Your task to perform on an android device: Set the phone to "Do not disturb". Image 0: 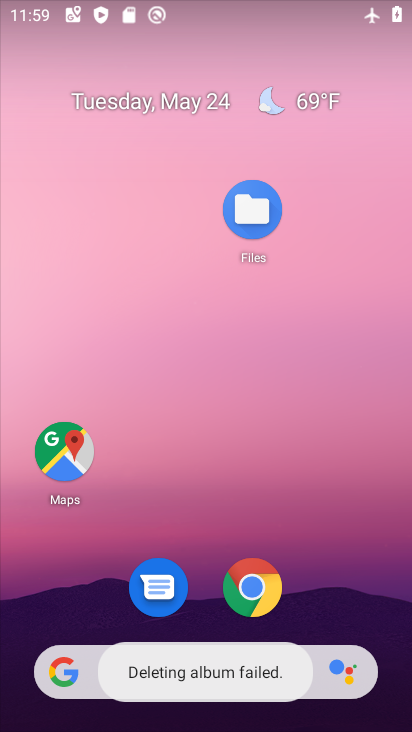
Step 0: drag from (329, 571) to (128, 215)
Your task to perform on an android device: Set the phone to "Do not disturb". Image 1: 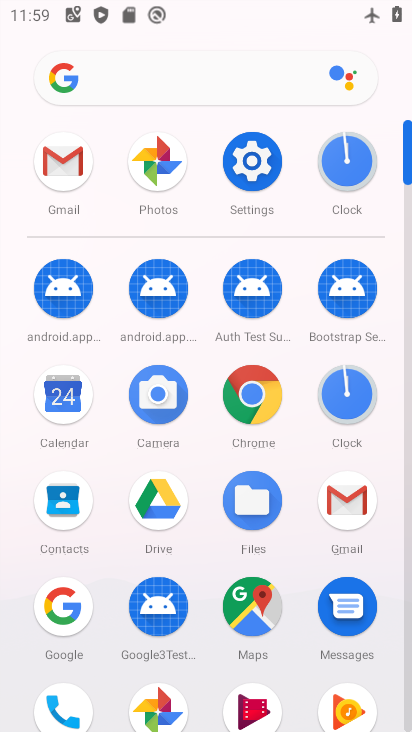
Step 1: click (255, 169)
Your task to perform on an android device: Set the phone to "Do not disturb". Image 2: 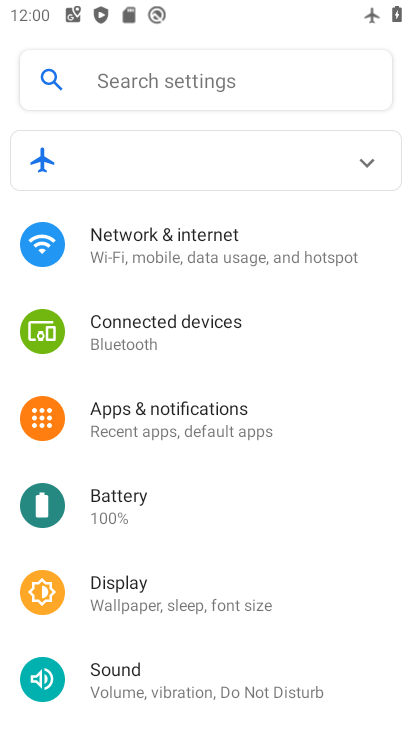
Step 2: click (169, 696)
Your task to perform on an android device: Set the phone to "Do not disturb". Image 3: 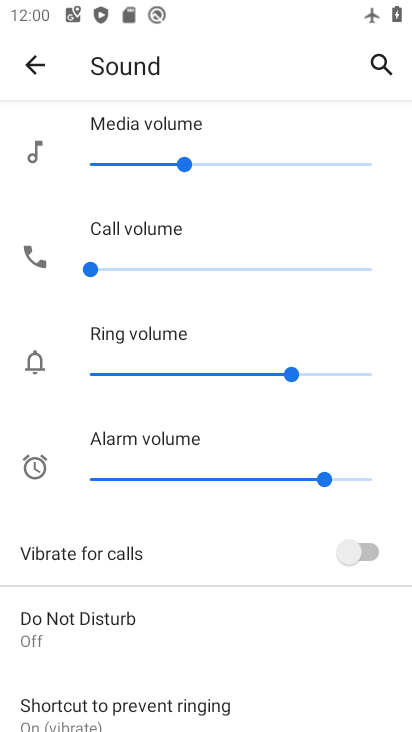
Step 3: click (78, 626)
Your task to perform on an android device: Set the phone to "Do not disturb". Image 4: 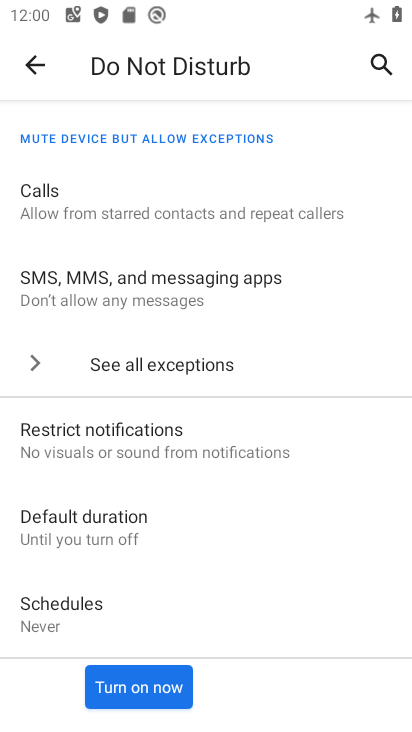
Step 4: click (119, 685)
Your task to perform on an android device: Set the phone to "Do not disturb". Image 5: 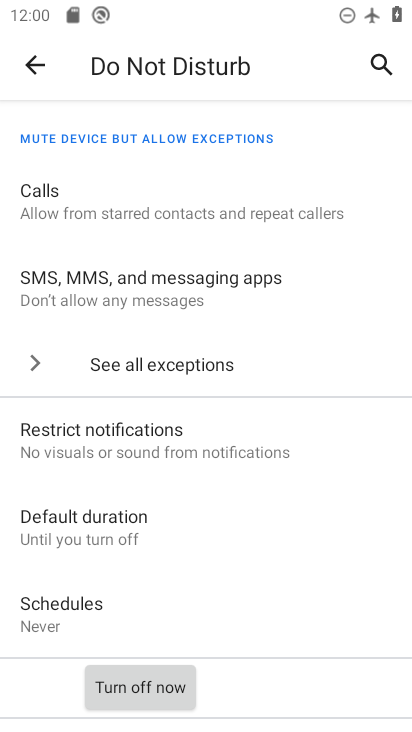
Step 5: task complete